Your task to perform on an android device: Open the phone app and click the voicemail tab. Image 0: 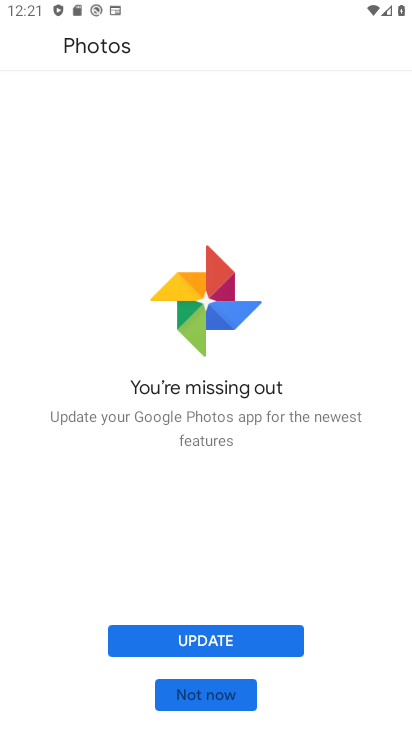
Step 0: press back button
Your task to perform on an android device: Open the phone app and click the voicemail tab. Image 1: 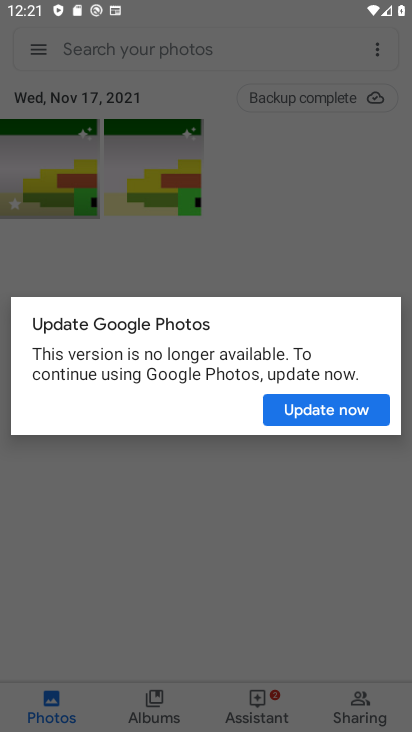
Step 1: press back button
Your task to perform on an android device: Open the phone app and click the voicemail tab. Image 2: 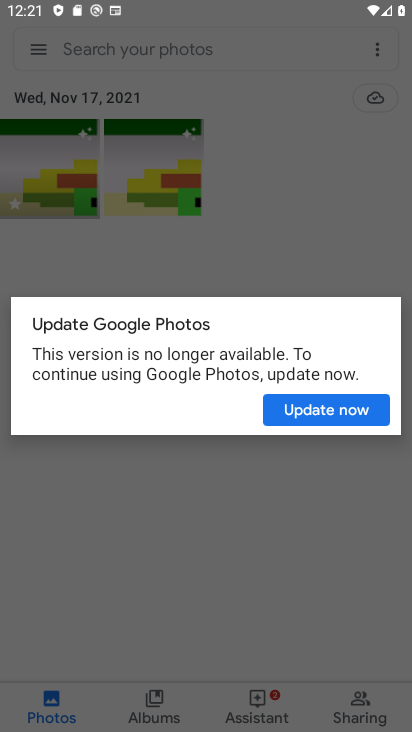
Step 2: press home button
Your task to perform on an android device: Open the phone app and click the voicemail tab. Image 3: 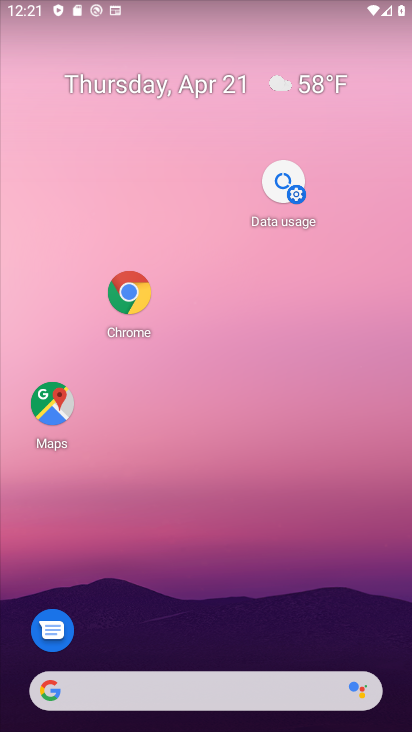
Step 3: drag from (219, 669) to (164, 254)
Your task to perform on an android device: Open the phone app and click the voicemail tab. Image 4: 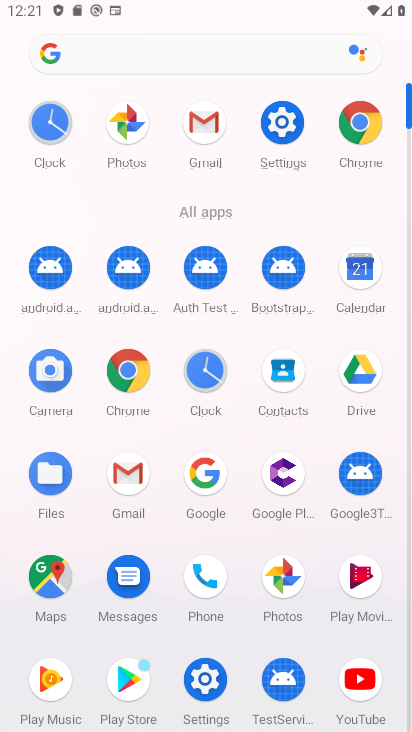
Step 4: click (214, 571)
Your task to perform on an android device: Open the phone app and click the voicemail tab. Image 5: 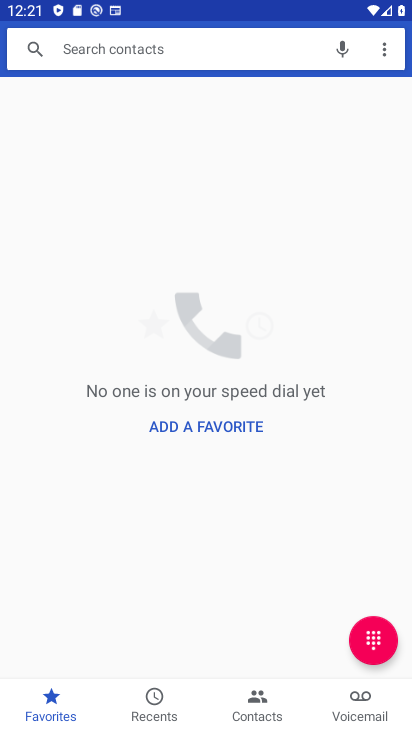
Step 5: click (361, 707)
Your task to perform on an android device: Open the phone app and click the voicemail tab. Image 6: 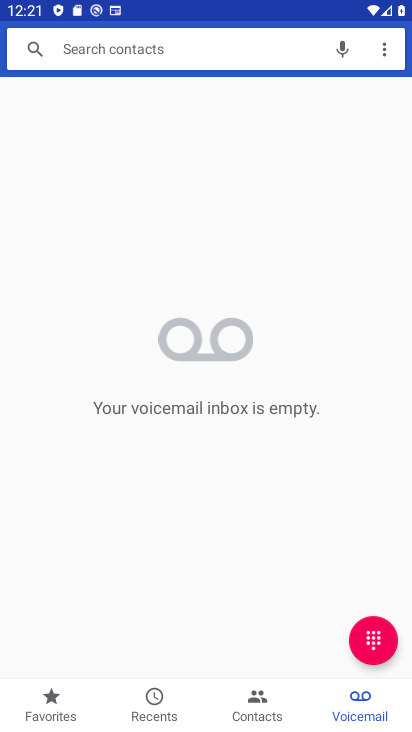
Step 6: task complete